Your task to perform on an android device: see tabs open on other devices in the chrome app Image 0: 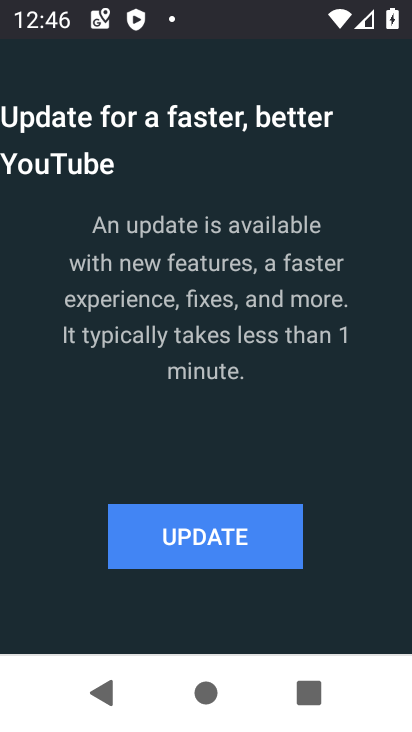
Step 0: click (332, 286)
Your task to perform on an android device: see tabs open on other devices in the chrome app Image 1: 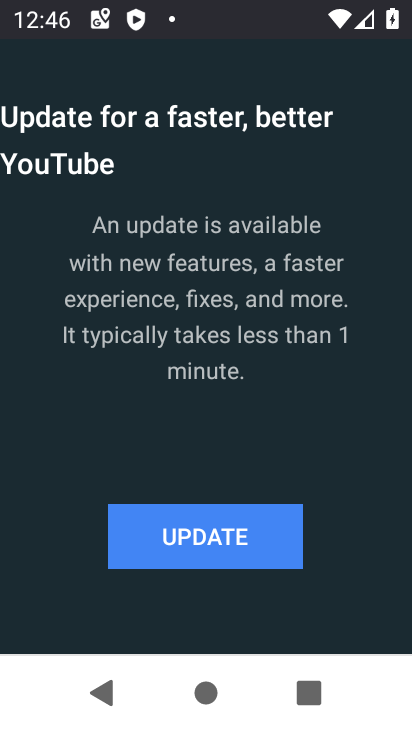
Step 1: press home button
Your task to perform on an android device: see tabs open on other devices in the chrome app Image 2: 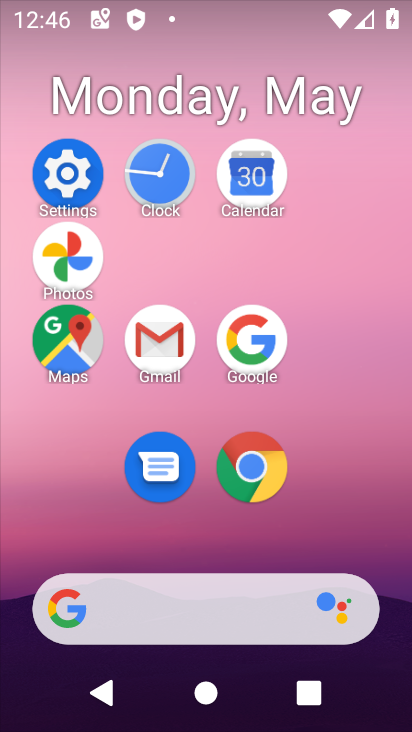
Step 2: click (268, 487)
Your task to perform on an android device: see tabs open on other devices in the chrome app Image 3: 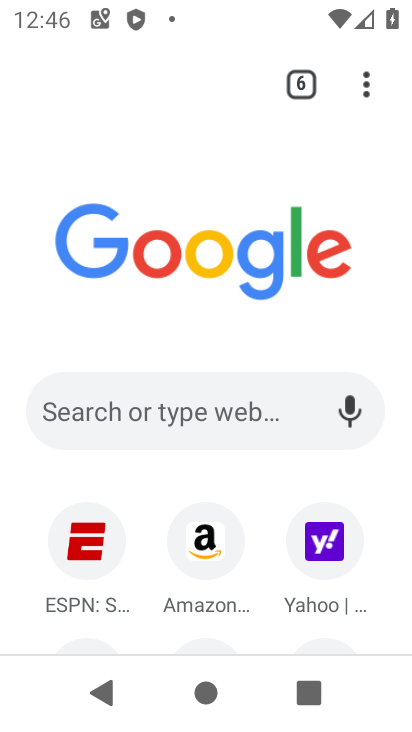
Step 3: click (370, 86)
Your task to perform on an android device: see tabs open on other devices in the chrome app Image 4: 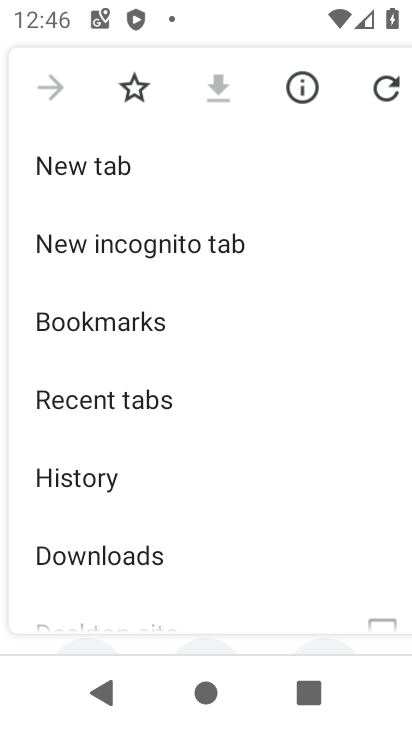
Step 4: click (196, 414)
Your task to perform on an android device: see tabs open on other devices in the chrome app Image 5: 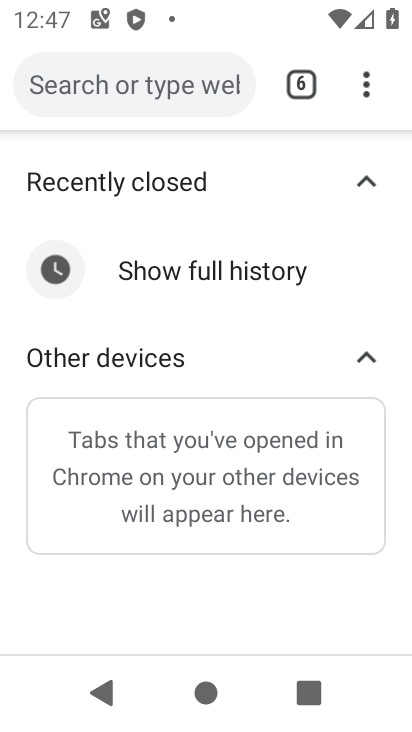
Step 5: click (216, 273)
Your task to perform on an android device: see tabs open on other devices in the chrome app Image 6: 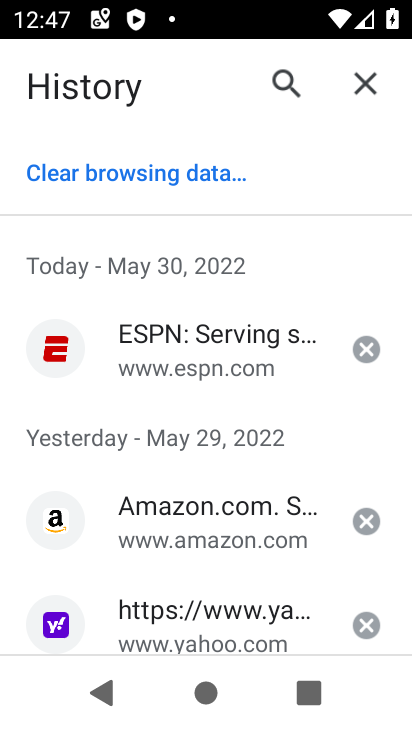
Step 6: task complete